Your task to perform on an android device: Is it going to rain tomorrow? Image 0: 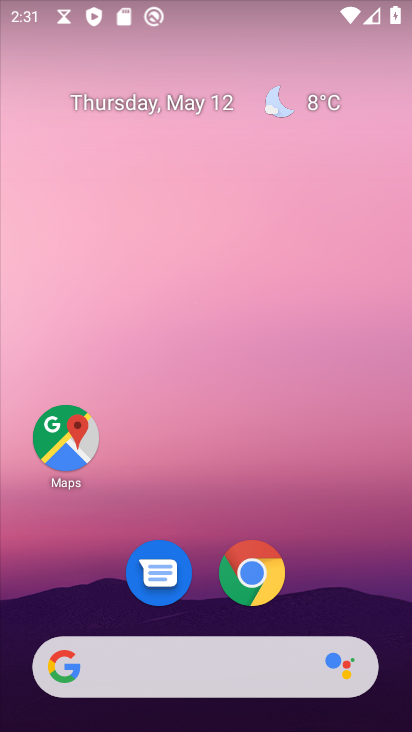
Step 0: drag from (327, 568) to (342, 283)
Your task to perform on an android device: Is it going to rain tomorrow? Image 1: 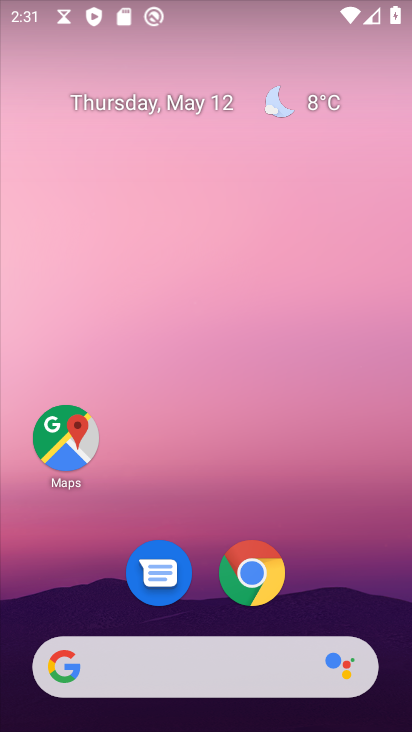
Step 1: drag from (202, 395) to (203, 24)
Your task to perform on an android device: Is it going to rain tomorrow? Image 2: 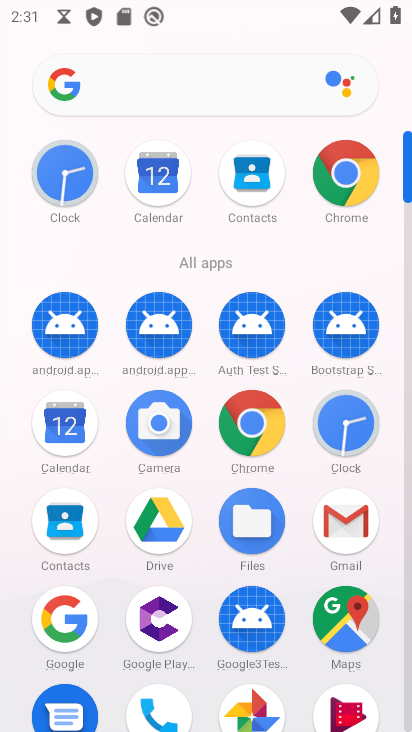
Step 2: click (250, 419)
Your task to perform on an android device: Is it going to rain tomorrow? Image 3: 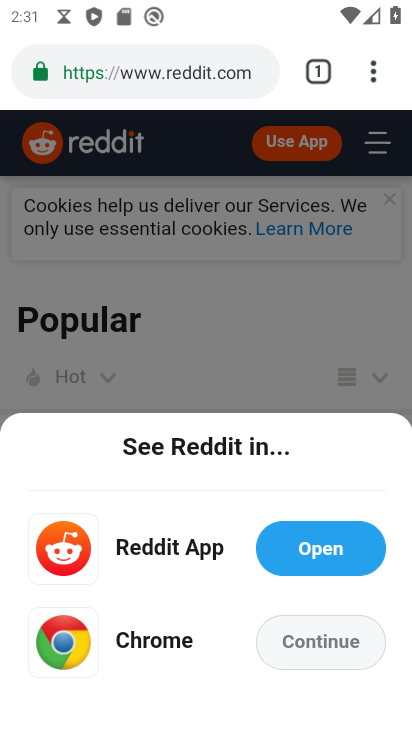
Step 3: click (224, 69)
Your task to perform on an android device: Is it going to rain tomorrow? Image 4: 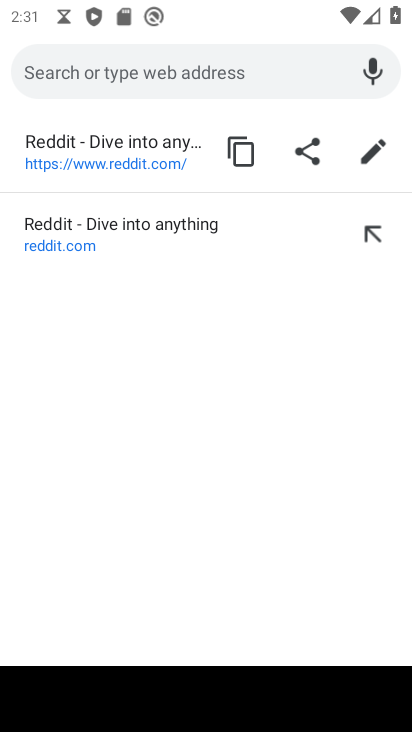
Step 4: type "Is it going to rain tomorrow?"
Your task to perform on an android device: Is it going to rain tomorrow? Image 5: 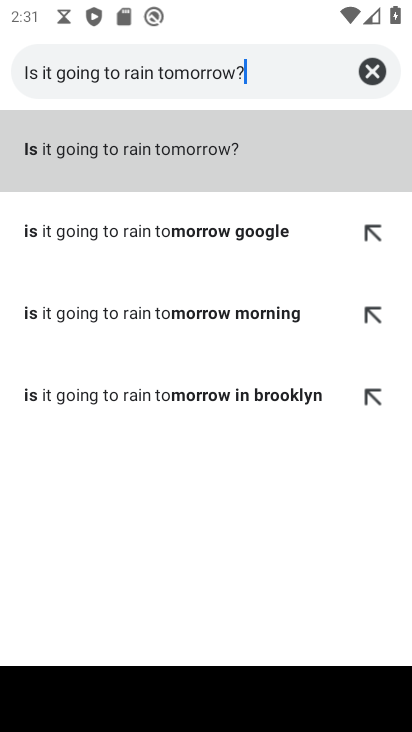
Step 5: click (134, 146)
Your task to perform on an android device: Is it going to rain tomorrow? Image 6: 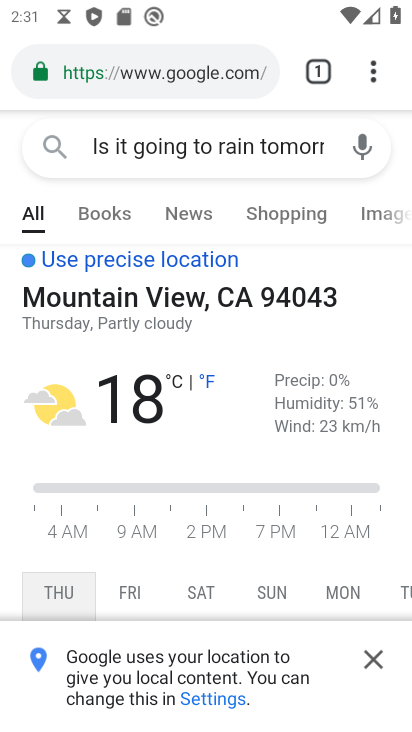
Step 6: task complete